Your task to perform on an android device: toggle airplane mode Image 0: 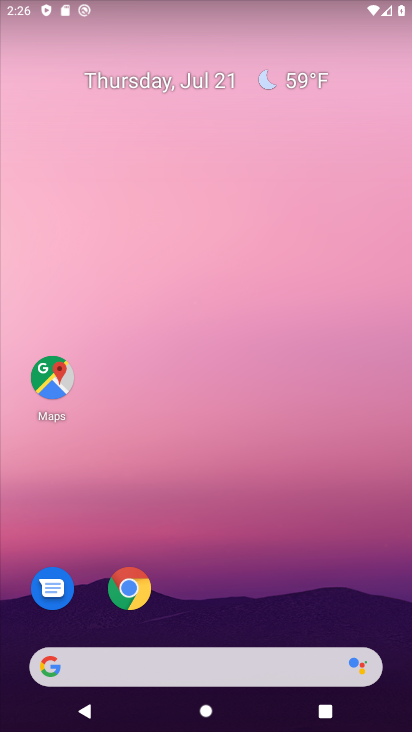
Step 0: click (139, 586)
Your task to perform on an android device: toggle airplane mode Image 1: 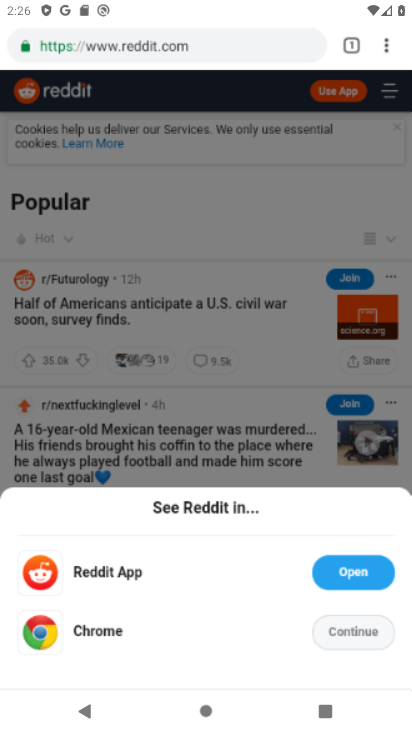
Step 1: press home button
Your task to perform on an android device: toggle airplane mode Image 2: 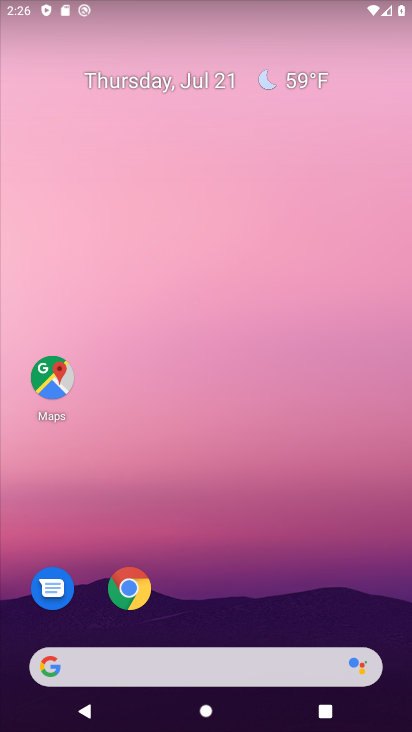
Step 2: drag from (396, 562) to (379, 162)
Your task to perform on an android device: toggle airplane mode Image 3: 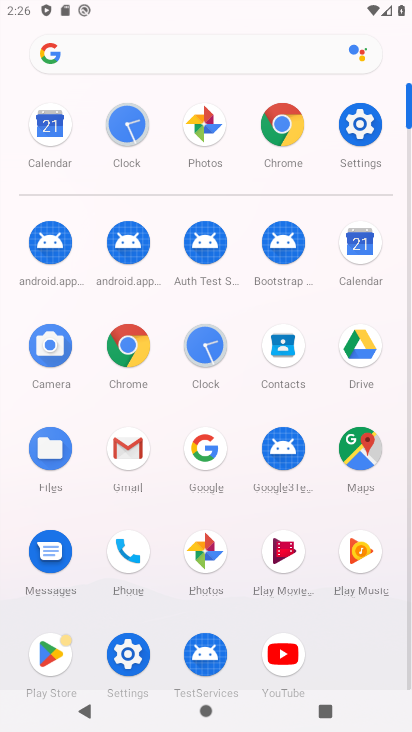
Step 3: click (370, 123)
Your task to perform on an android device: toggle airplane mode Image 4: 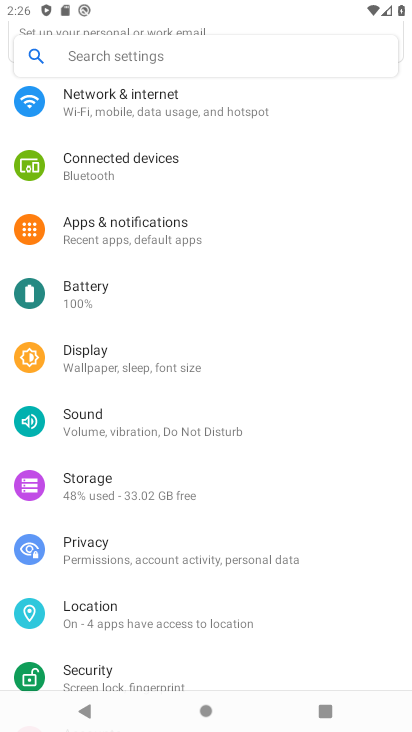
Step 4: drag from (324, 625) to (313, 349)
Your task to perform on an android device: toggle airplane mode Image 5: 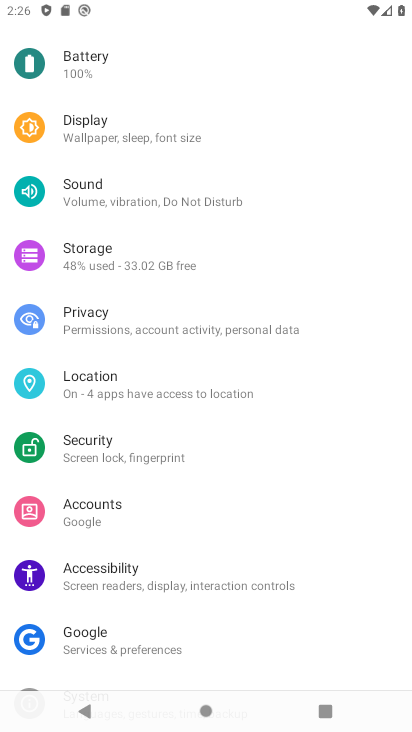
Step 5: drag from (342, 337) to (345, 609)
Your task to perform on an android device: toggle airplane mode Image 6: 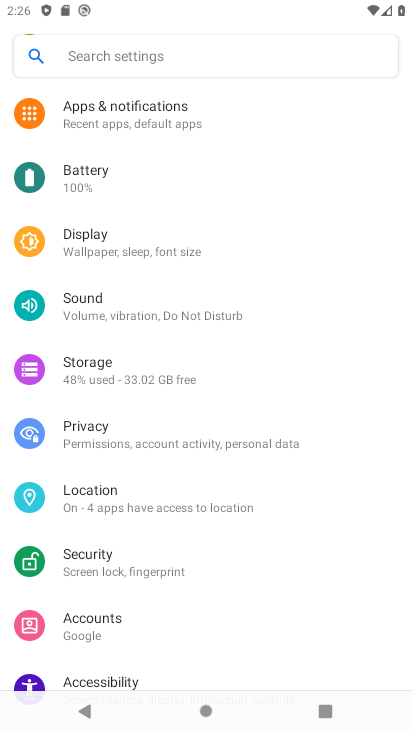
Step 6: drag from (329, 179) to (327, 586)
Your task to perform on an android device: toggle airplane mode Image 7: 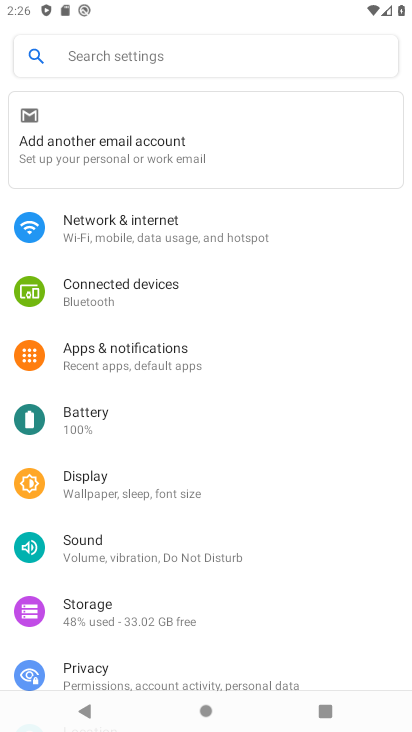
Step 7: click (159, 223)
Your task to perform on an android device: toggle airplane mode Image 8: 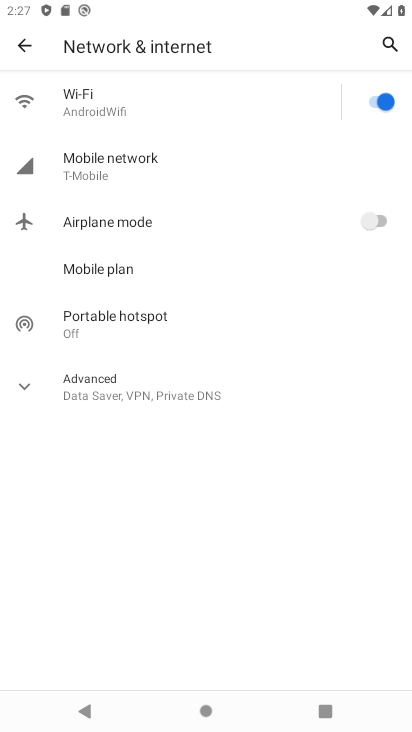
Step 8: click (379, 219)
Your task to perform on an android device: toggle airplane mode Image 9: 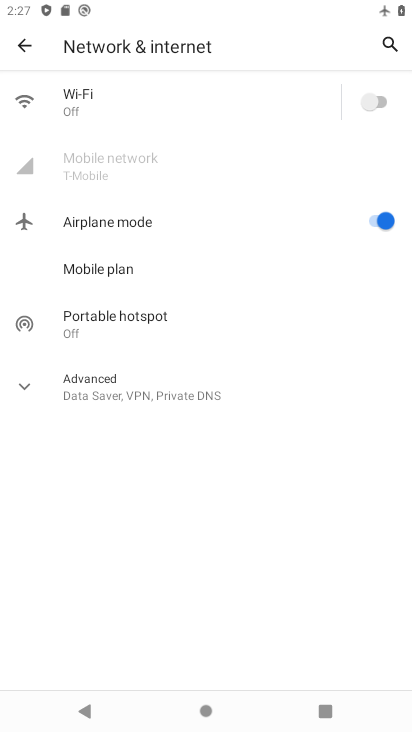
Step 9: task complete